Your task to perform on an android device: open wifi settings Image 0: 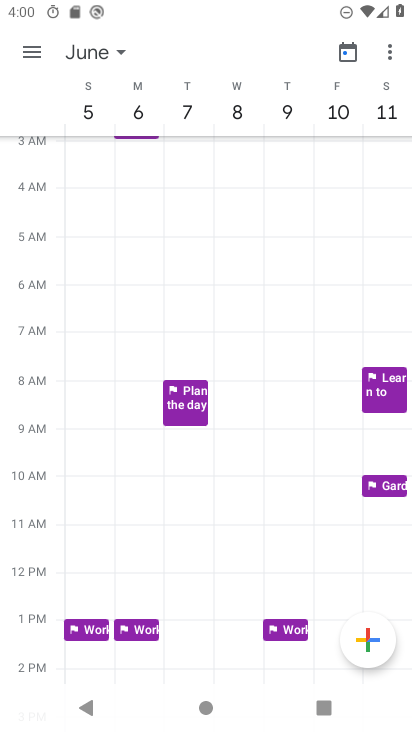
Step 0: press home button
Your task to perform on an android device: open wifi settings Image 1: 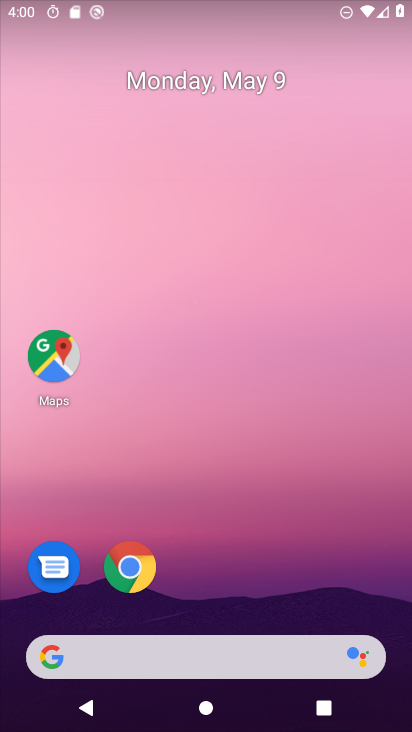
Step 1: drag from (242, 600) to (190, 161)
Your task to perform on an android device: open wifi settings Image 2: 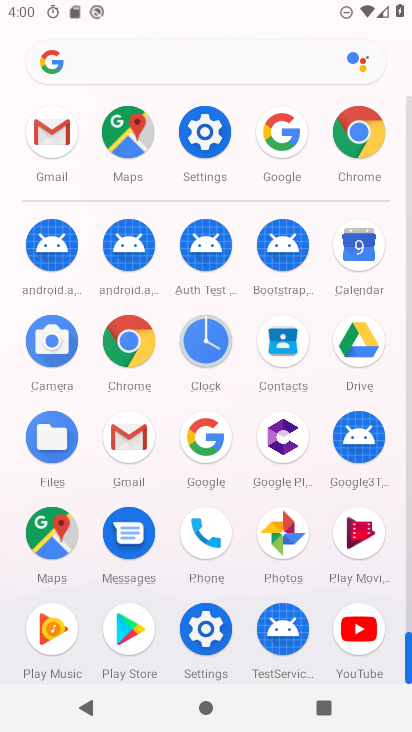
Step 2: click (192, 135)
Your task to perform on an android device: open wifi settings Image 3: 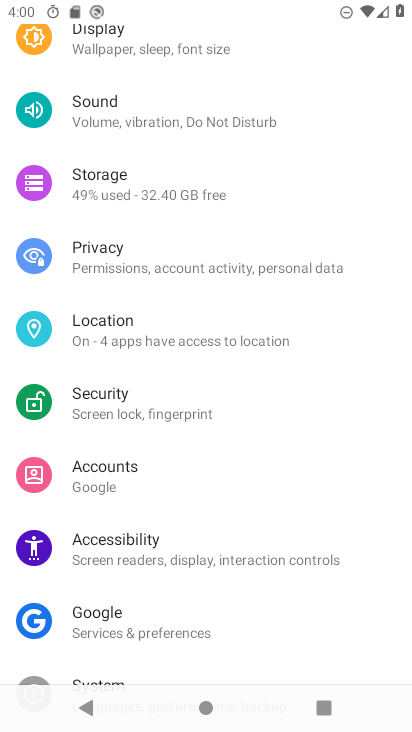
Step 3: drag from (212, 92) to (216, 587)
Your task to perform on an android device: open wifi settings Image 4: 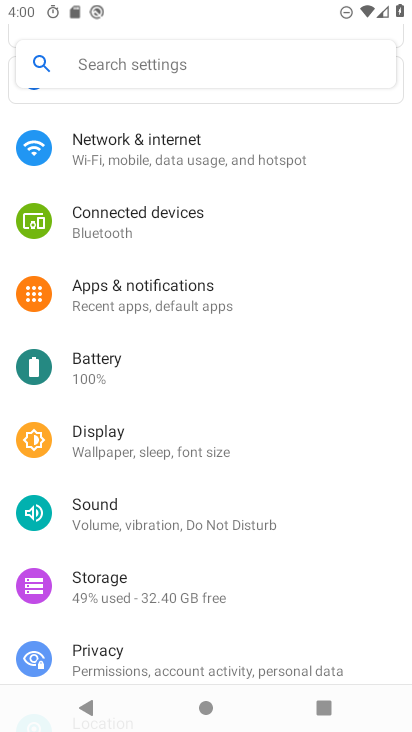
Step 4: click (168, 151)
Your task to perform on an android device: open wifi settings Image 5: 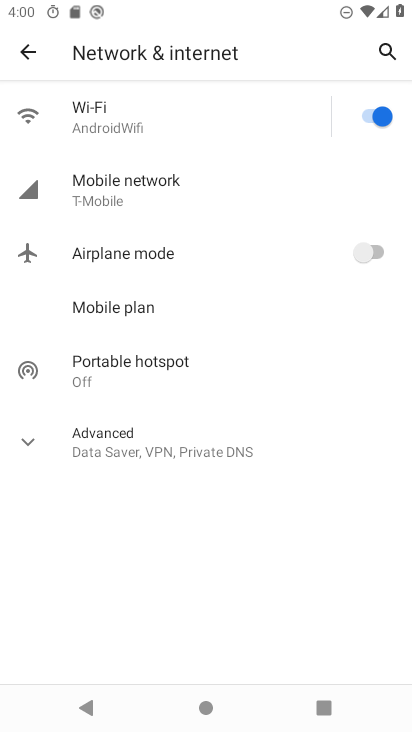
Step 5: click (126, 128)
Your task to perform on an android device: open wifi settings Image 6: 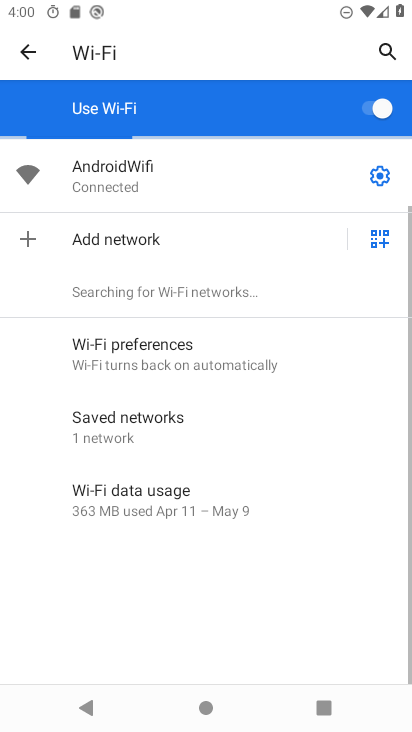
Step 6: task complete